Your task to perform on an android device: Turn on the flashlight Image 0: 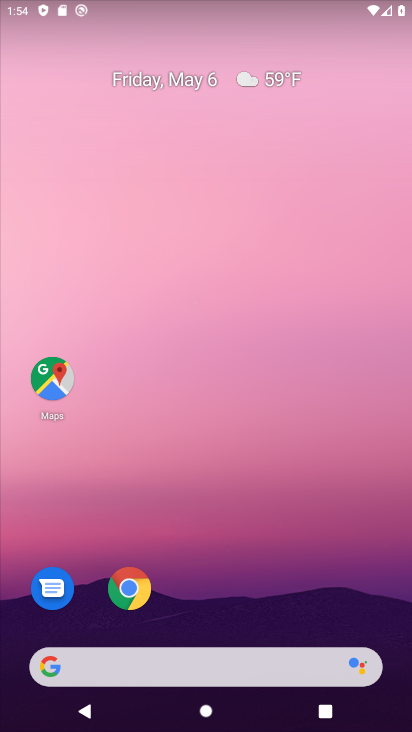
Step 0: drag from (254, 6) to (270, 705)
Your task to perform on an android device: Turn on the flashlight Image 1: 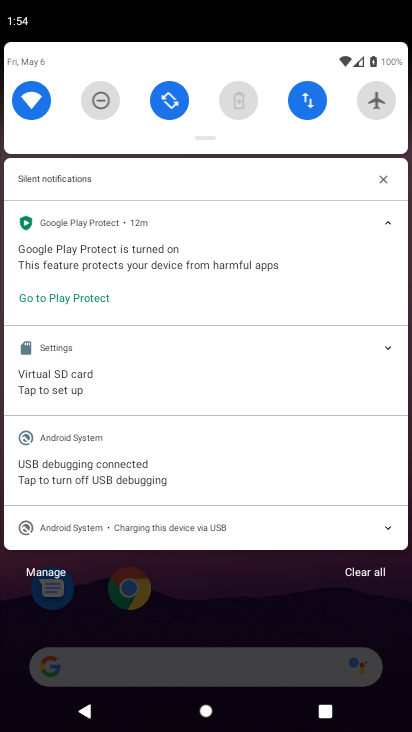
Step 1: drag from (276, 97) to (189, 589)
Your task to perform on an android device: Turn on the flashlight Image 2: 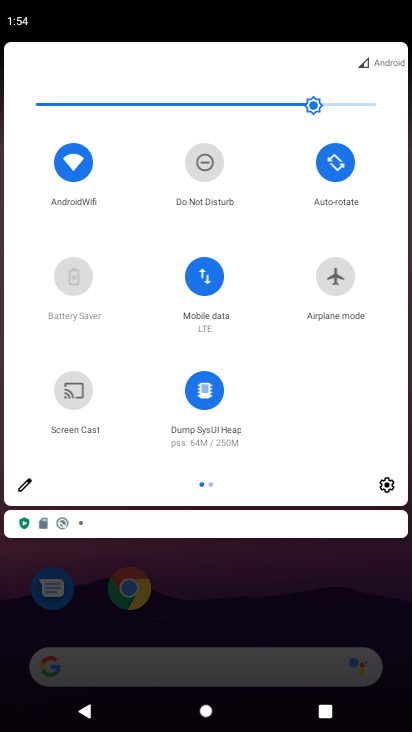
Step 2: click (390, 494)
Your task to perform on an android device: Turn on the flashlight Image 3: 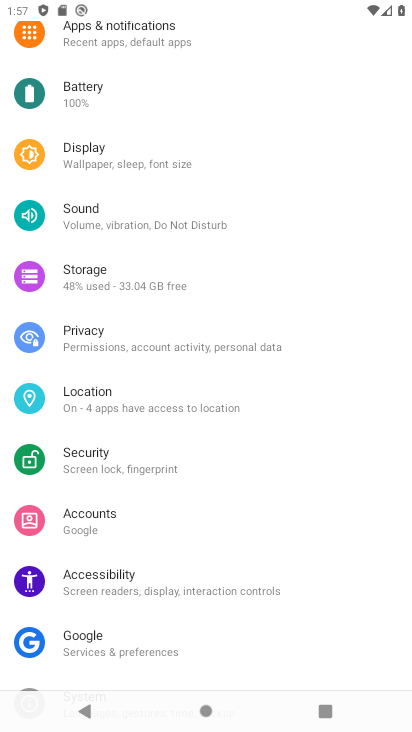
Step 3: task complete